Your task to perform on an android device: Go to Google maps Image 0: 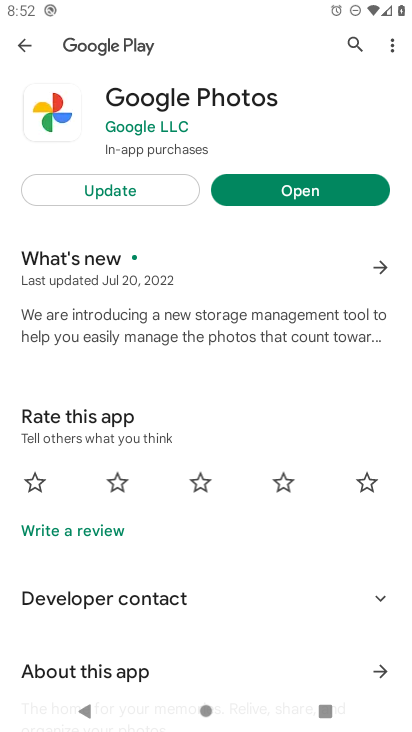
Step 0: press home button
Your task to perform on an android device: Go to Google maps Image 1: 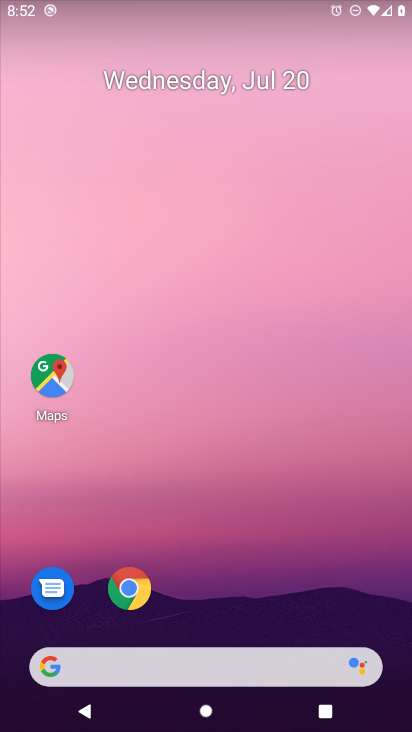
Step 1: click (48, 375)
Your task to perform on an android device: Go to Google maps Image 2: 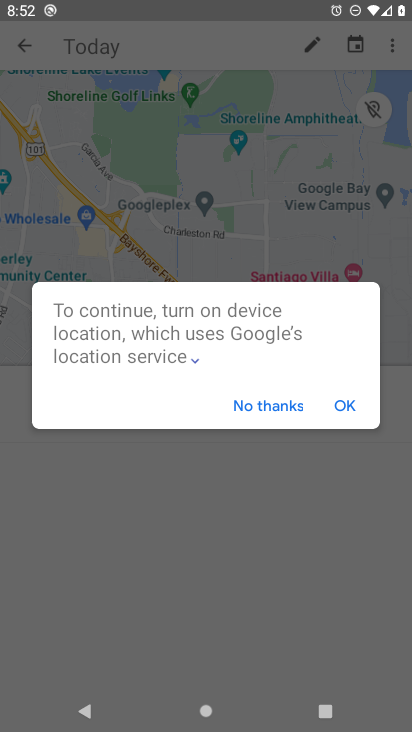
Step 2: click (332, 405)
Your task to perform on an android device: Go to Google maps Image 3: 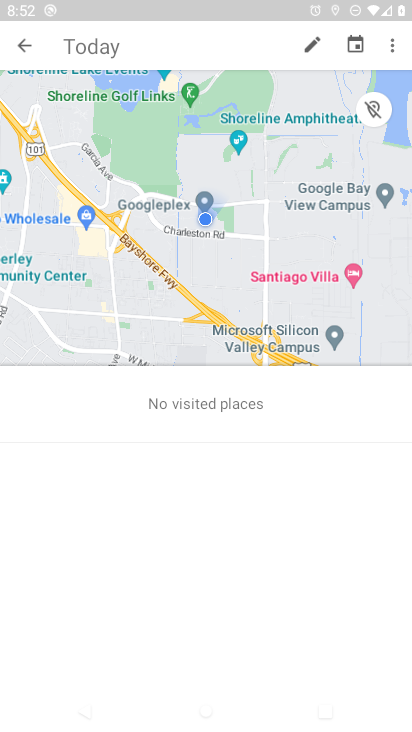
Step 3: task complete